Your task to perform on an android device: Go to Reddit.com Image 0: 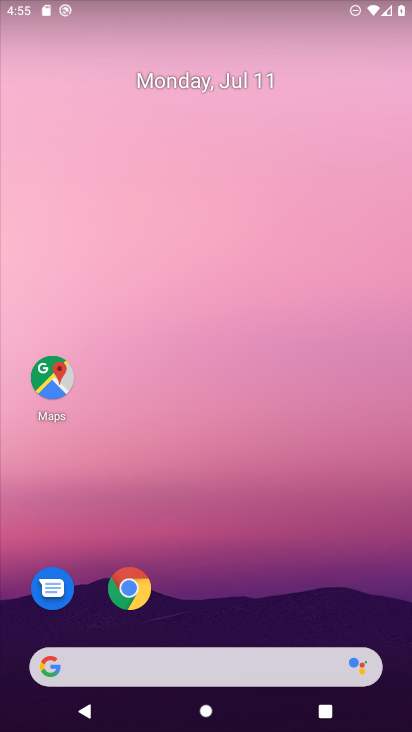
Step 0: press home button
Your task to perform on an android device: Go to Reddit.com Image 1: 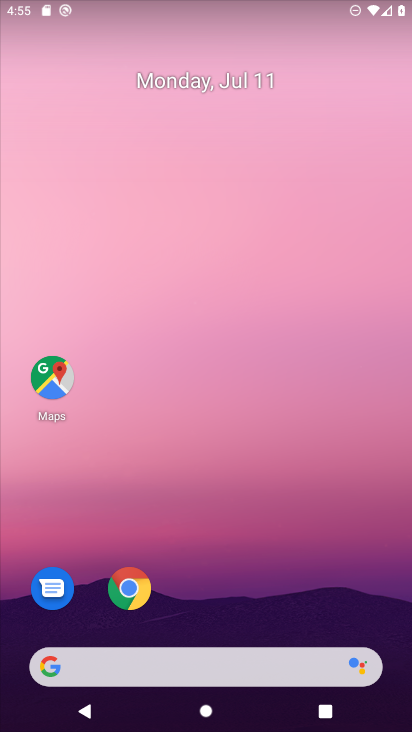
Step 1: click (44, 671)
Your task to perform on an android device: Go to Reddit.com Image 2: 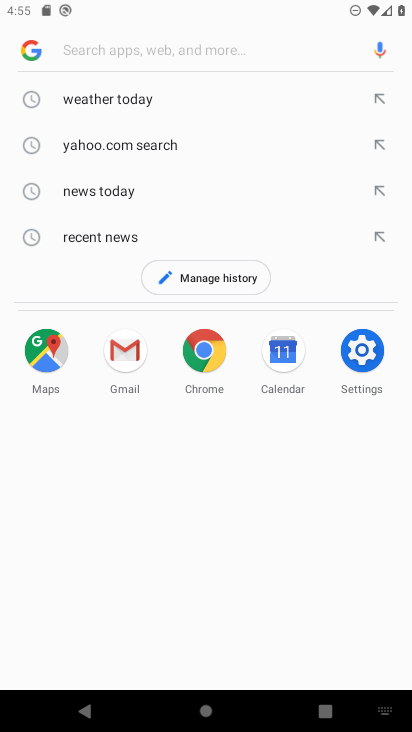
Step 2: type "Reddit.com"
Your task to perform on an android device: Go to Reddit.com Image 3: 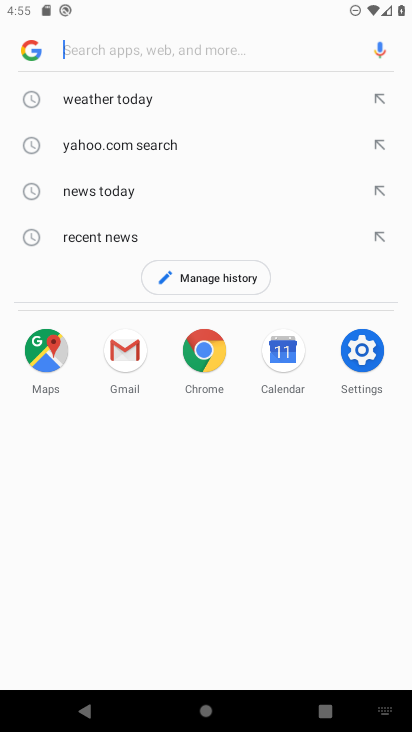
Step 3: click (108, 42)
Your task to perform on an android device: Go to Reddit.com Image 4: 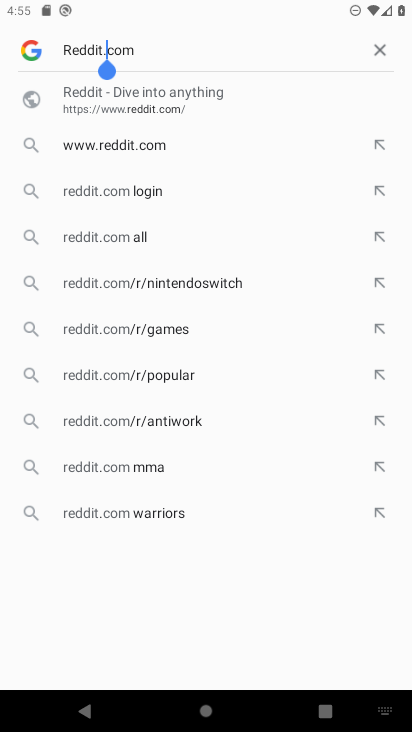
Step 4: click (123, 146)
Your task to perform on an android device: Go to Reddit.com Image 5: 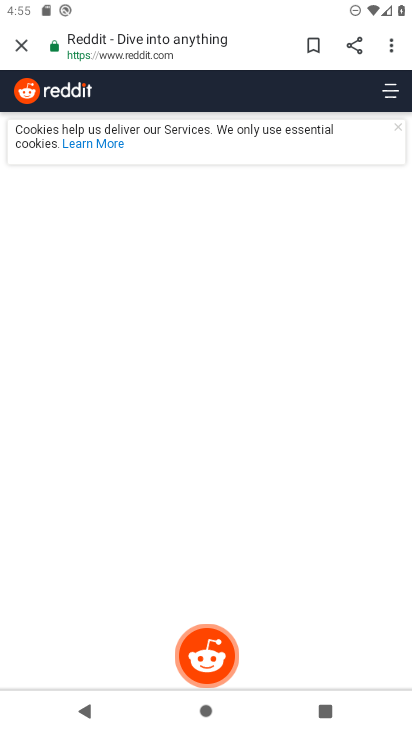
Step 5: task complete